Your task to perform on an android device: Open Android settings Image 0: 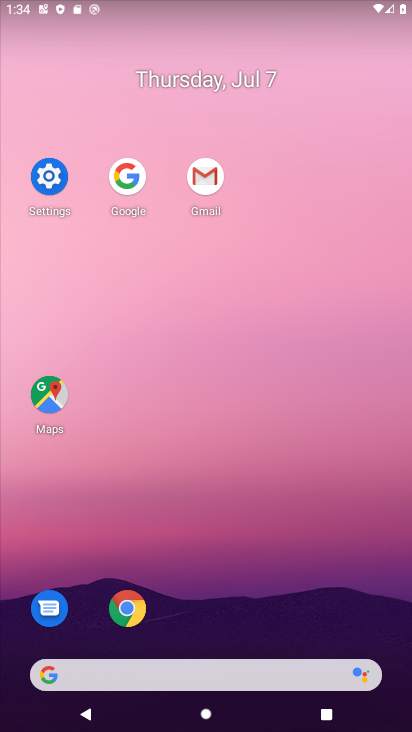
Step 0: click (47, 179)
Your task to perform on an android device: Open Android settings Image 1: 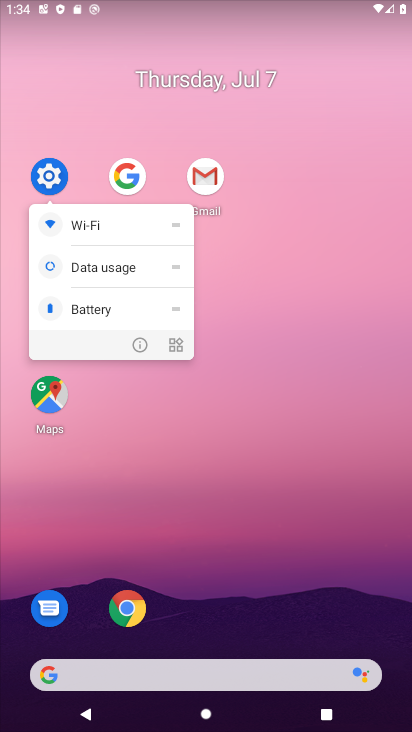
Step 1: click (60, 170)
Your task to perform on an android device: Open Android settings Image 2: 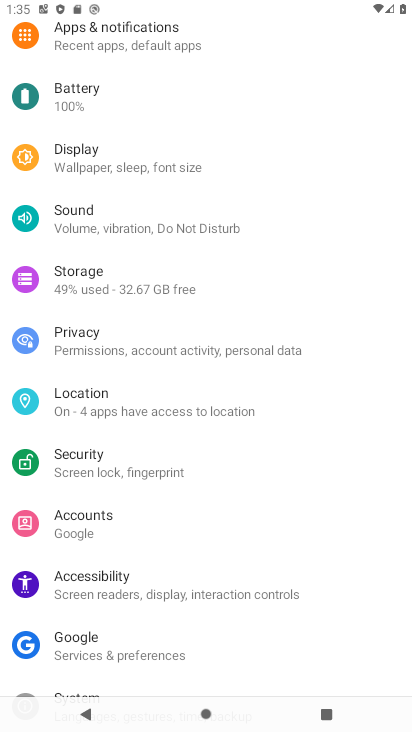
Step 2: task complete